Your task to perform on an android device: Show me recent news Image 0: 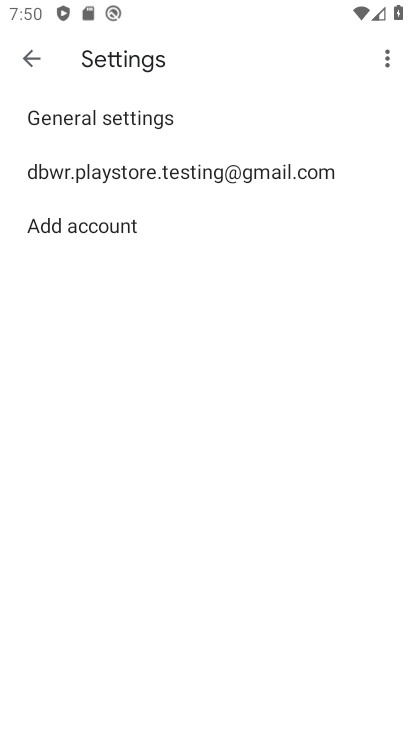
Step 0: press home button
Your task to perform on an android device: Show me recent news Image 1: 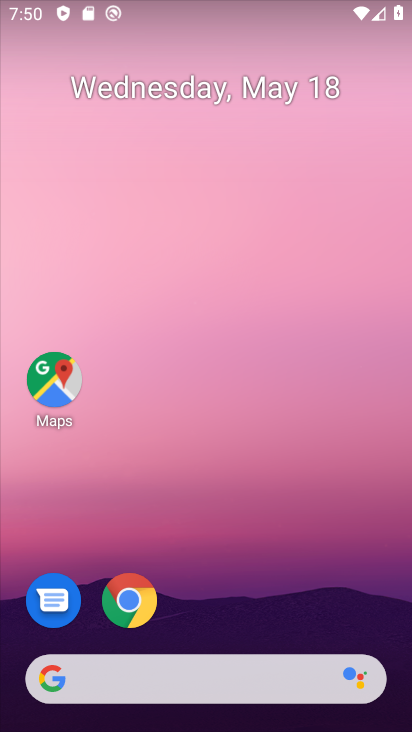
Step 1: drag from (256, 705) to (389, 44)
Your task to perform on an android device: Show me recent news Image 2: 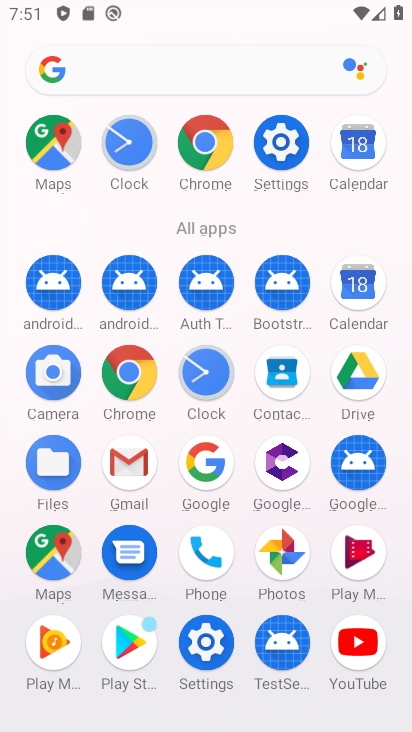
Step 2: click (160, 79)
Your task to perform on an android device: Show me recent news Image 3: 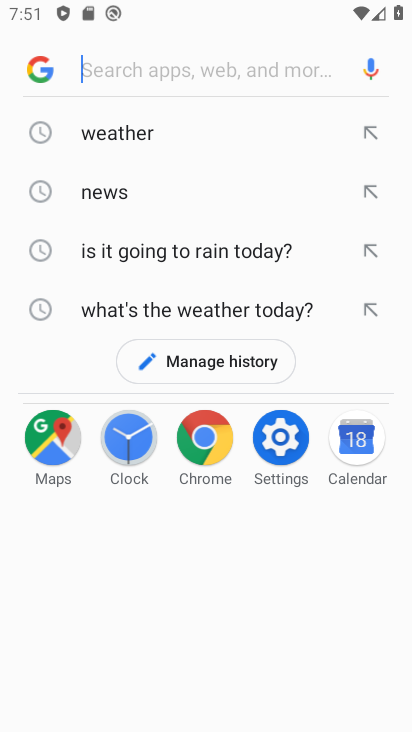
Step 3: click (121, 70)
Your task to perform on an android device: Show me recent news Image 4: 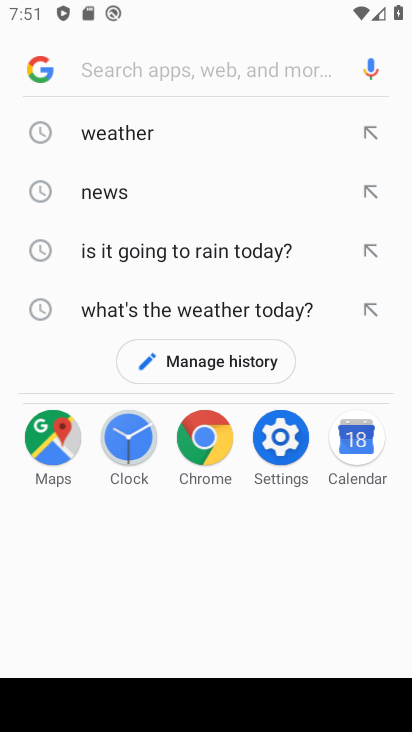
Step 4: drag from (385, 715) to (411, 648)
Your task to perform on an android device: Show me recent news Image 5: 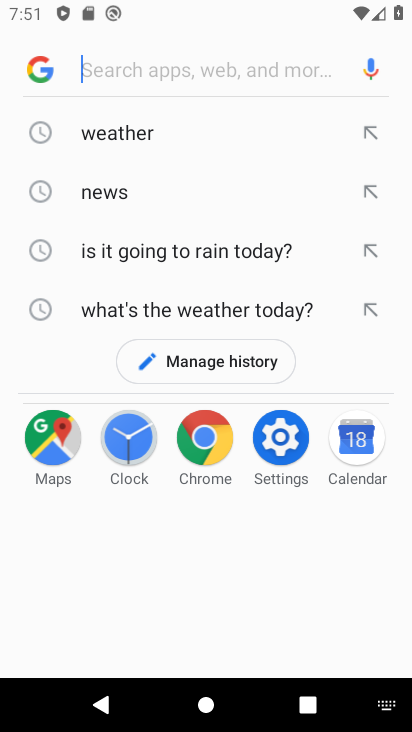
Step 5: click (381, 701)
Your task to perform on an android device: Show me recent news Image 6: 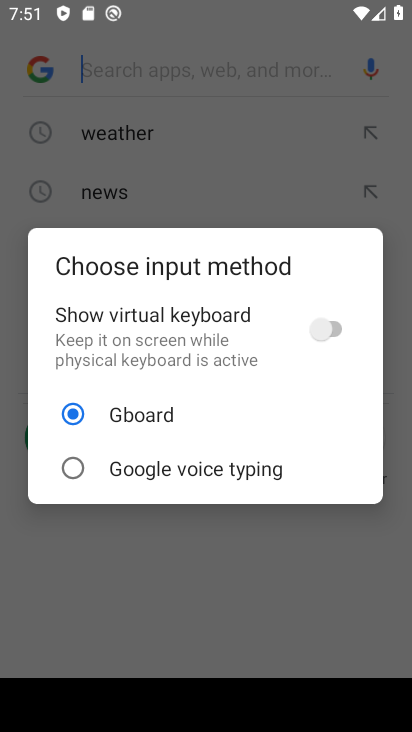
Step 6: click (316, 324)
Your task to perform on an android device: Show me recent news Image 7: 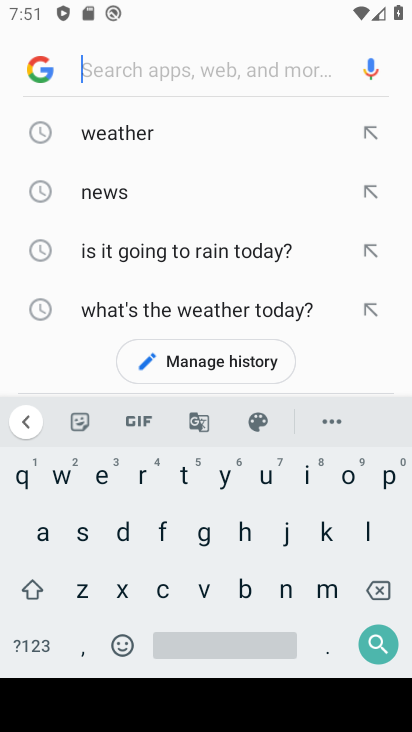
Step 7: click (142, 483)
Your task to perform on an android device: Show me recent news Image 8: 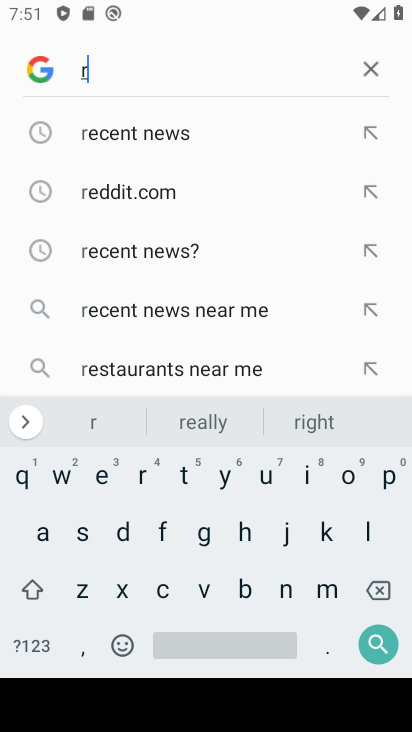
Step 8: click (99, 484)
Your task to perform on an android device: Show me recent news Image 9: 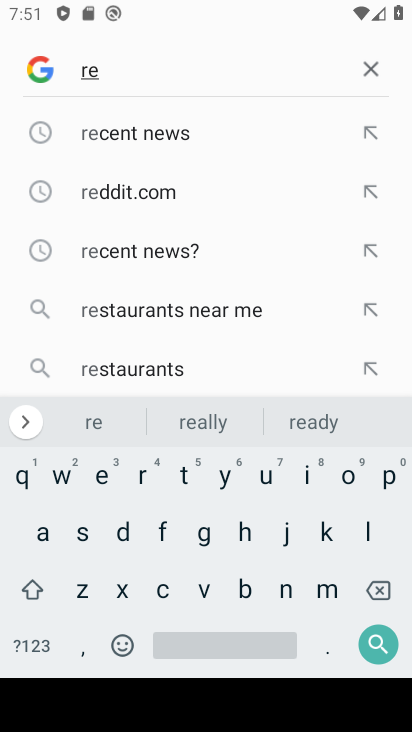
Step 9: click (160, 134)
Your task to perform on an android device: Show me recent news Image 10: 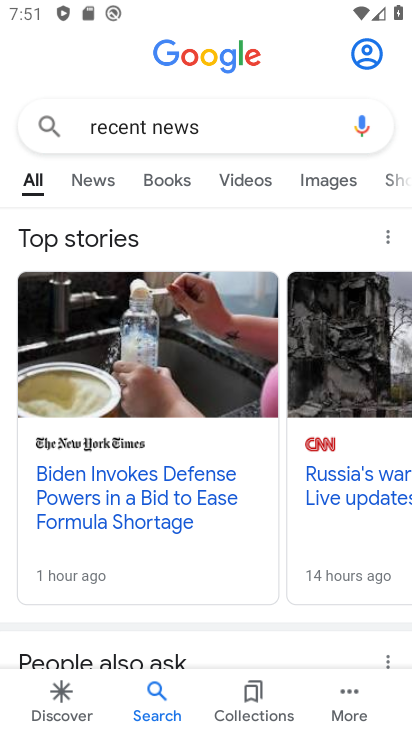
Step 10: task complete